Your task to perform on an android device: turn on wifi Image 0: 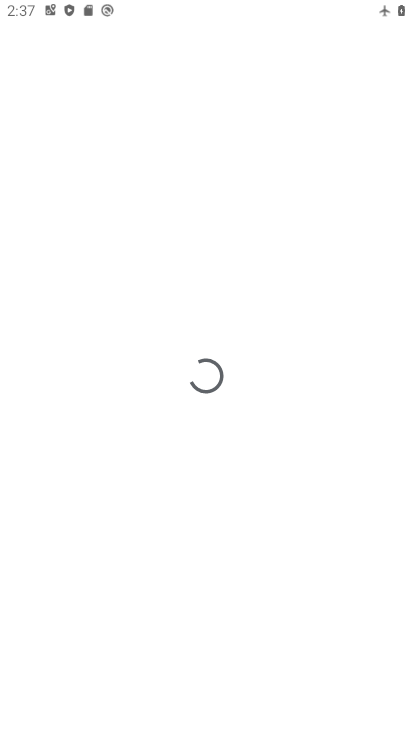
Step 0: press home button
Your task to perform on an android device: turn on wifi Image 1: 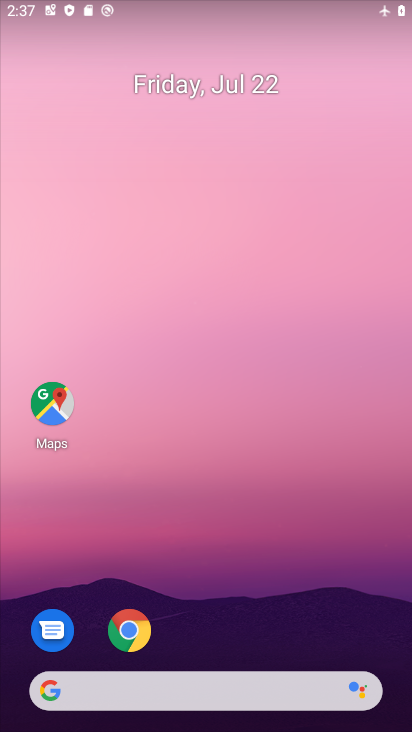
Step 1: drag from (193, 663) to (125, 41)
Your task to perform on an android device: turn on wifi Image 2: 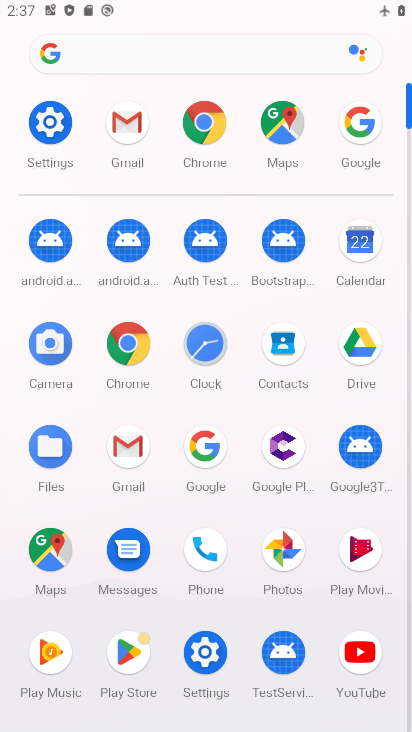
Step 2: click (1, 130)
Your task to perform on an android device: turn on wifi Image 3: 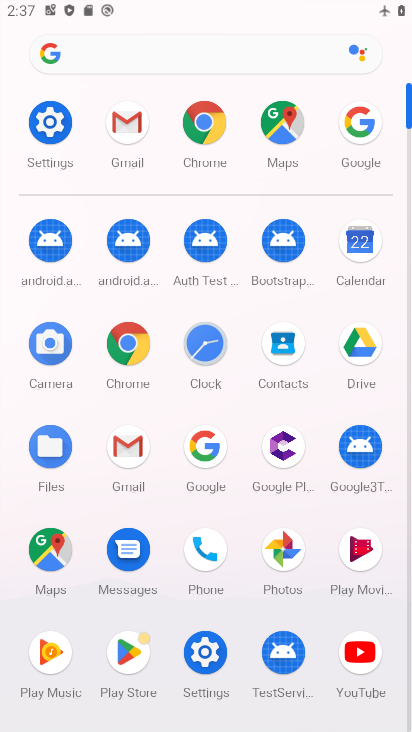
Step 3: click (36, 134)
Your task to perform on an android device: turn on wifi Image 4: 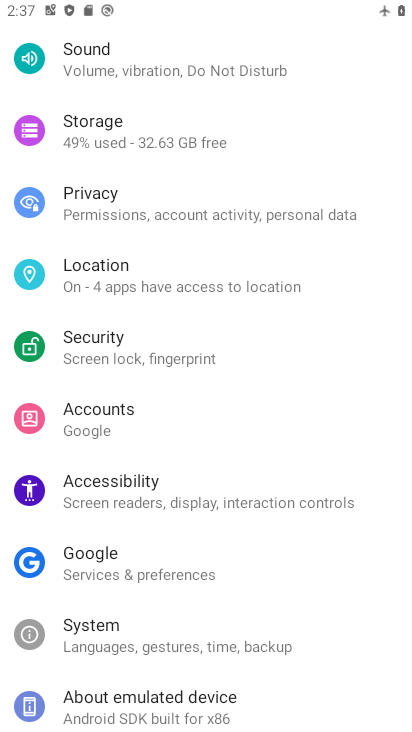
Step 4: drag from (132, 149) to (159, 641)
Your task to perform on an android device: turn on wifi Image 5: 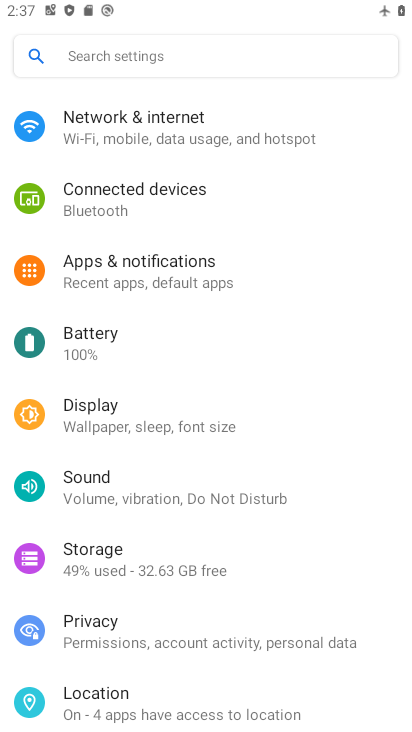
Step 5: click (188, 139)
Your task to perform on an android device: turn on wifi Image 6: 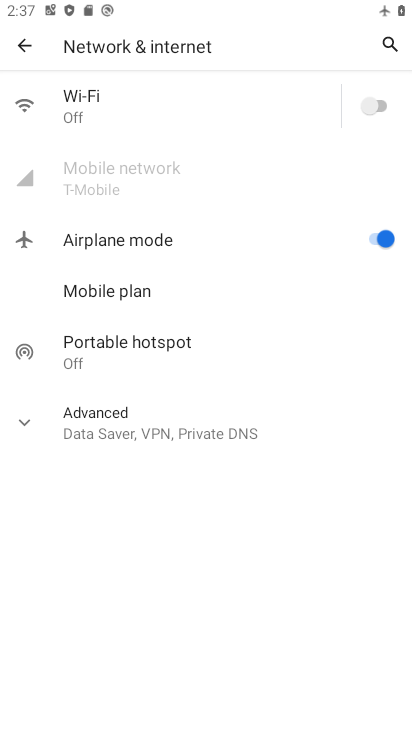
Step 6: click (362, 104)
Your task to perform on an android device: turn on wifi Image 7: 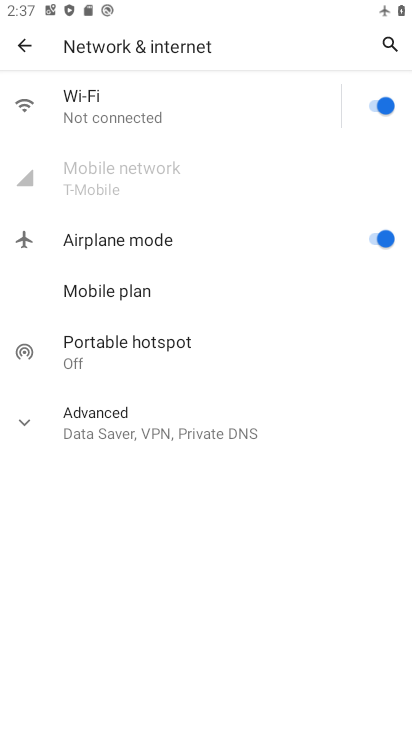
Step 7: task complete